Your task to perform on an android device: Go to wifi settings Image 0: 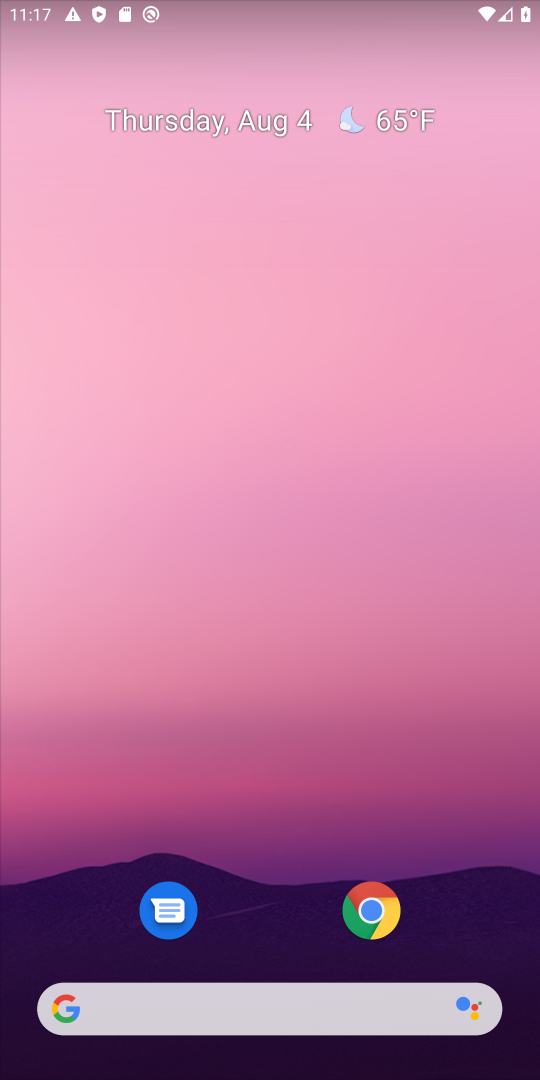
Step 0: drag from (208, 989) to (273, 203)
Your task to perform on an android device: Go to wifi settings Image 1: 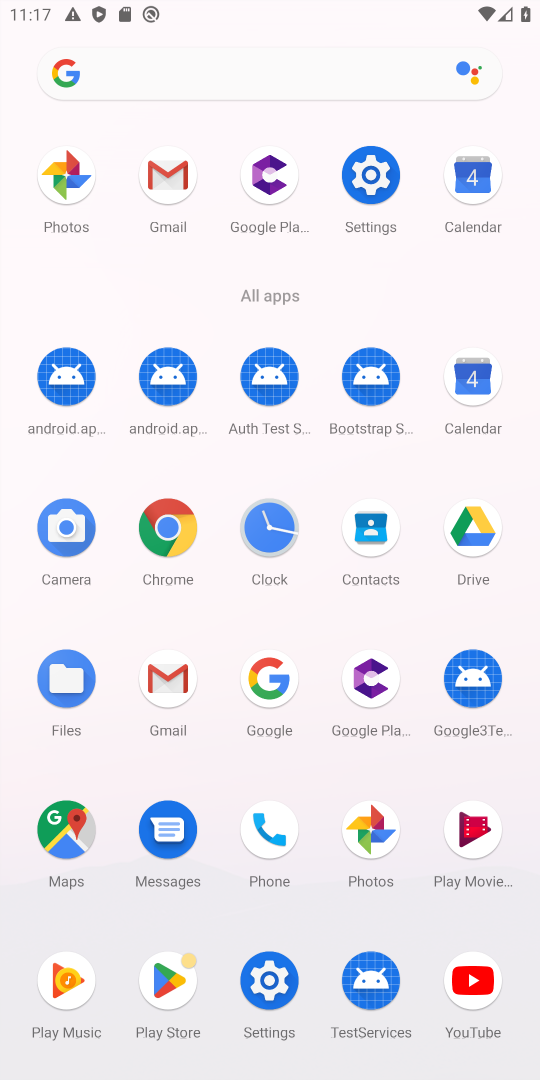
Step 1: click (362, 175)
Your task to perform on an android device: Go to wifi settings Image 2: 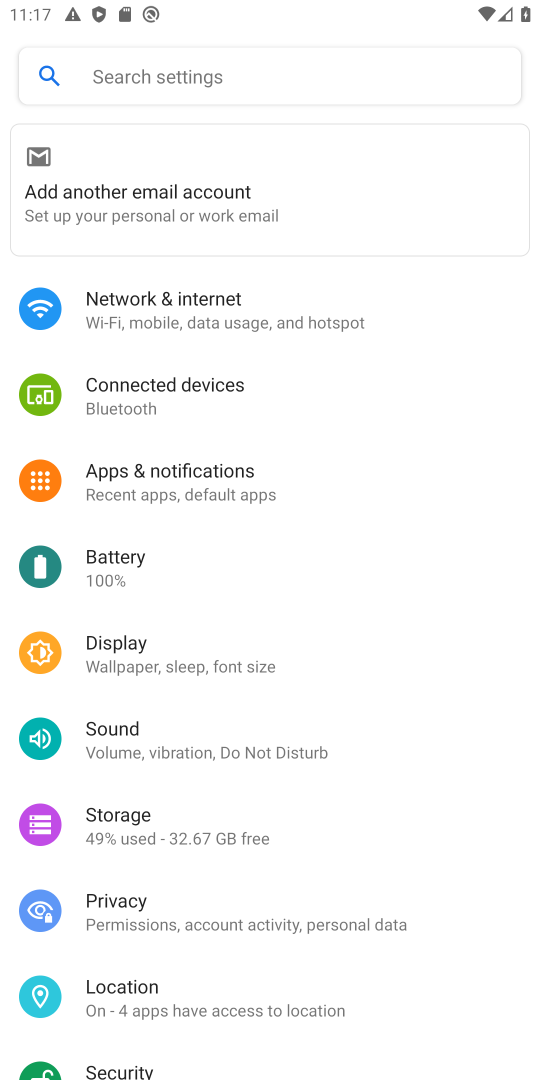
Step 2: drag from (158, 308) to (223, 308)
Your task to perform on an android device: Go to wifi settings Image 3: 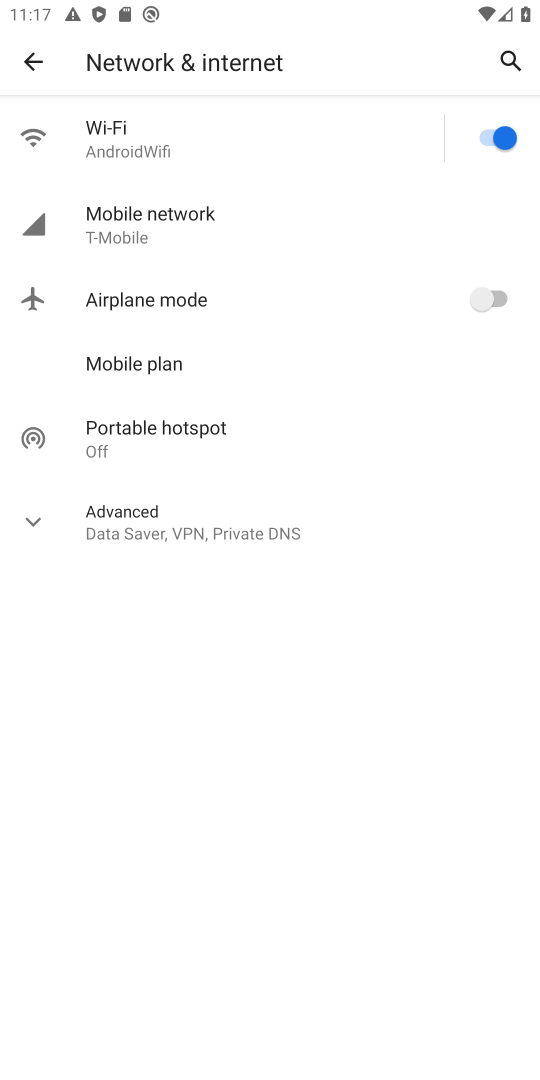
Step 3: click (140, 136)
Your task to perform on an android device: Go to wifi settings Image 4: 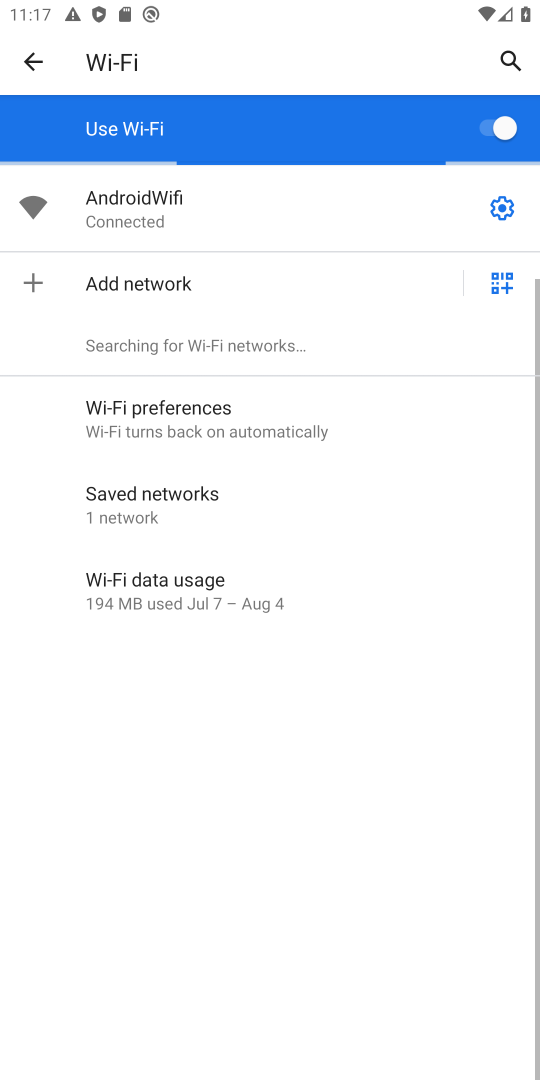
Step 4: click (495, 216)
Your task to perform on an android device: Go to wifi settings Image 5: 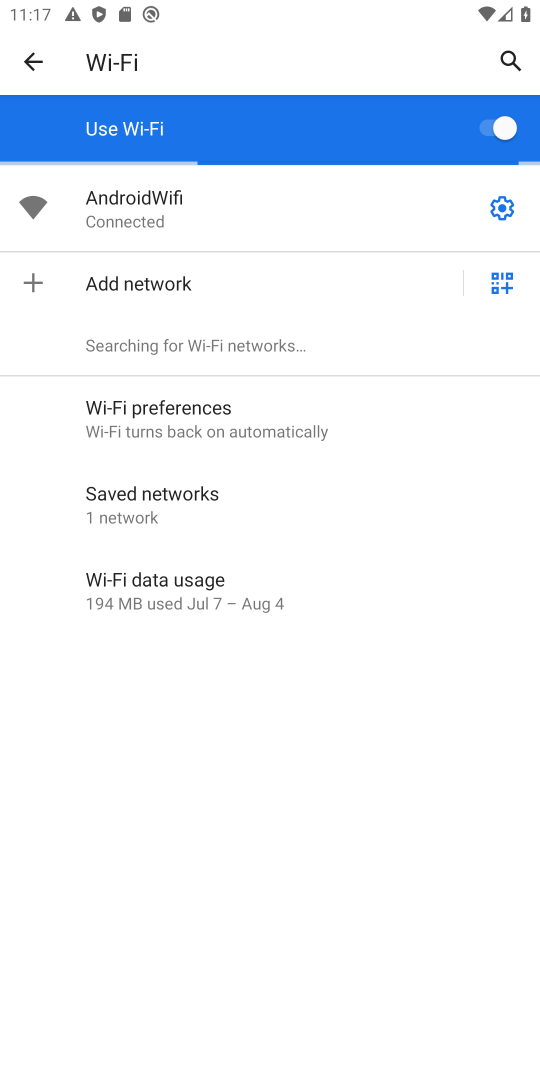
Step 5: click (506, 212)
Your task to perform on an android device: Go to wifi settings Image 6: 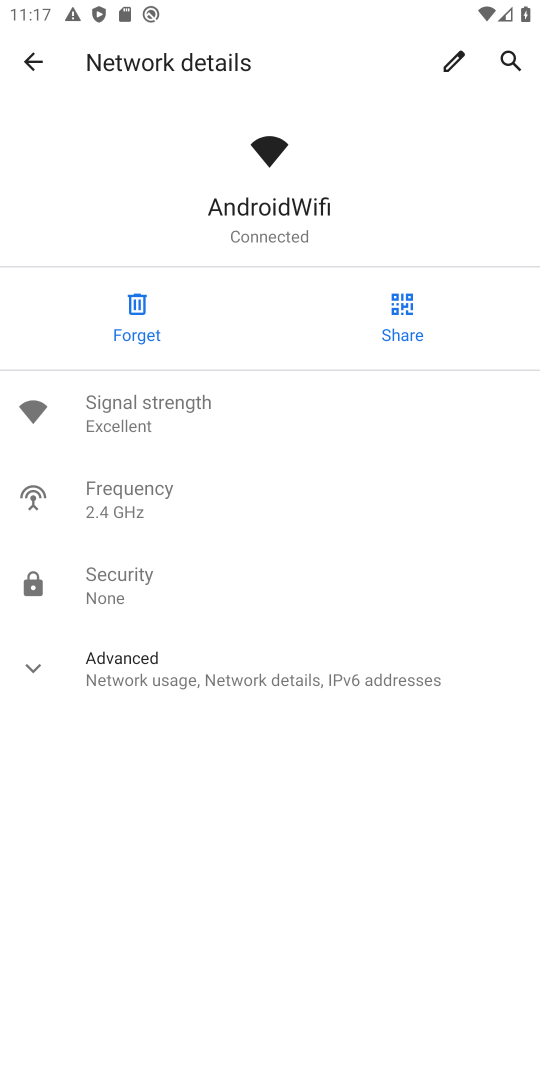
Step 6: click (277, 671)
Your task to perform on an android device: Go to wifi settings Image 7: 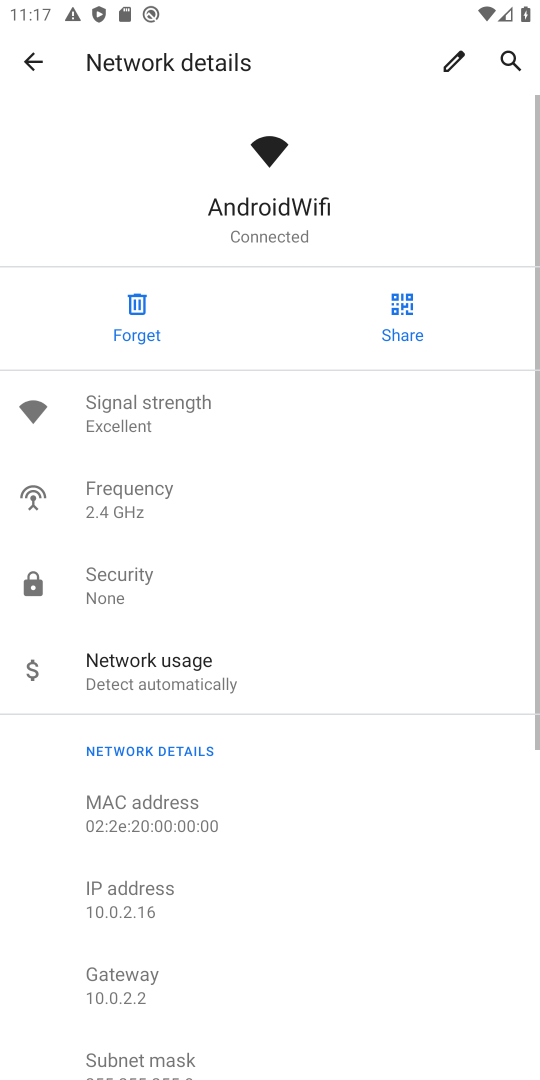
Step 7: task complete